Your task to perform on an android device: Open the phone app and click the voicemail tab. Image 0: 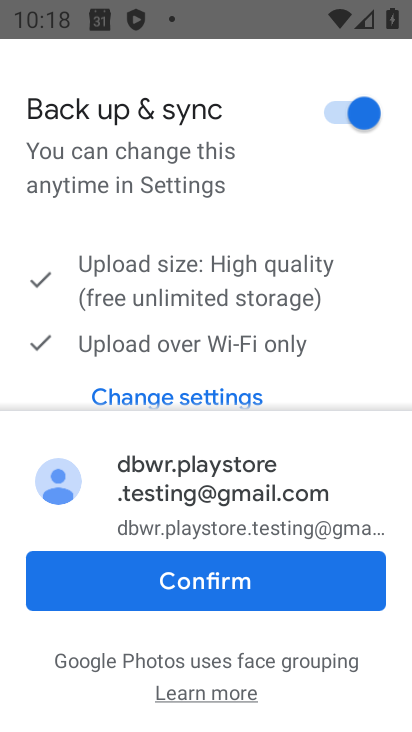
Step 0: press home button
Your task to perform on an android device: Open the phone app and click the voicemail tab. Image 1: 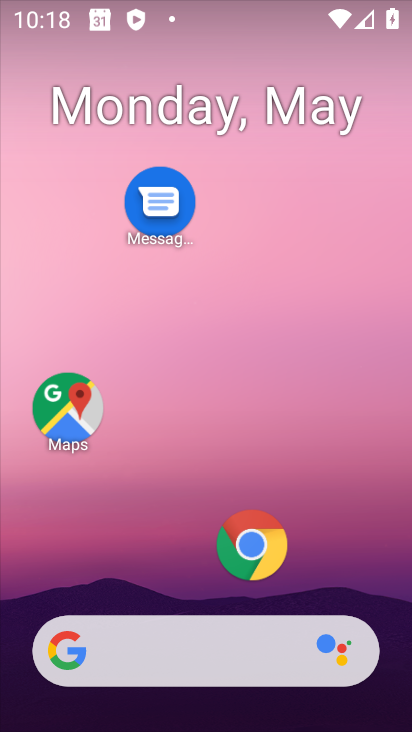
Step 1: drag from (177, 590) to (229, 43)
Your task to perform on an android device: Open the phone app and click the voicemail tab. Image 2: 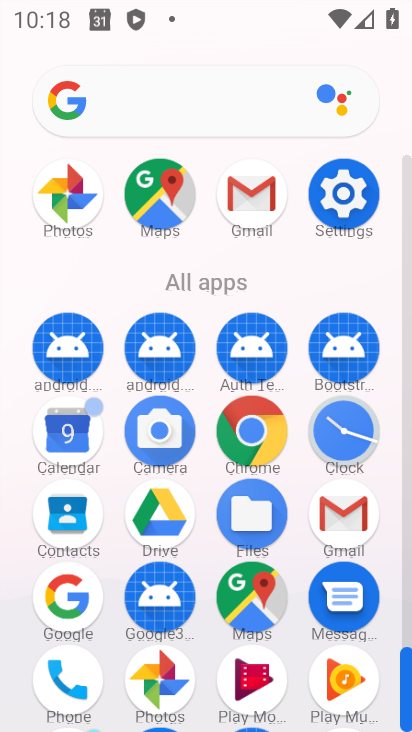
Step 2: click (47, 683)
Your task to perform on an android device: Open the phone app and click the voicemail tab. Image 3: 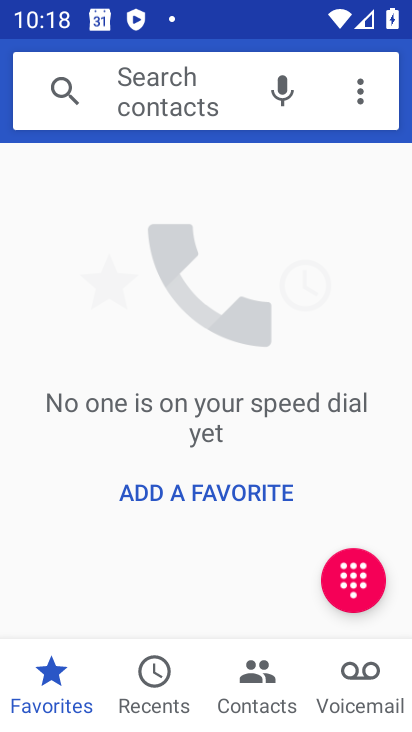
Step 3: click (334, 709)
Your task to perform on an android device: Open the phone app and click the voicemail tab. Image 4: 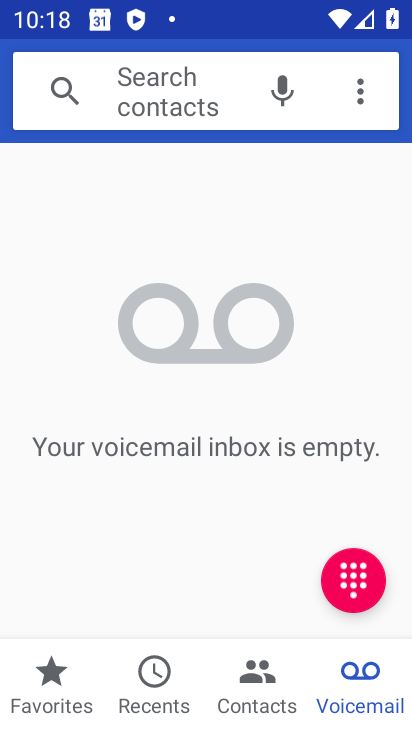
Step 4: task complete